Your task to perform on an android device: Open the web browser Image 0: 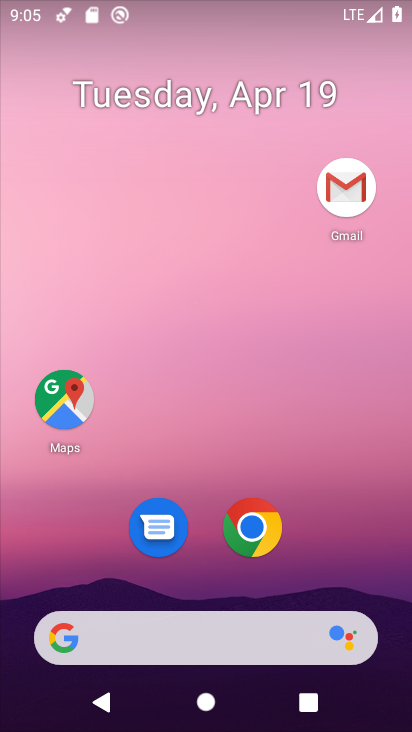
Step 0: drag from (373, 548) to (378, 76)
Your task to perform on an android device: Open the web browser Image 1: 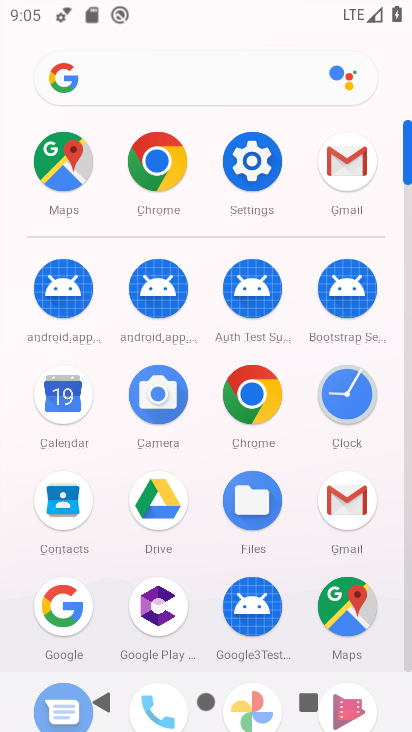
Step 1: click (273, 391)
Your task to perform on an android device: Open the web browser Image 2: 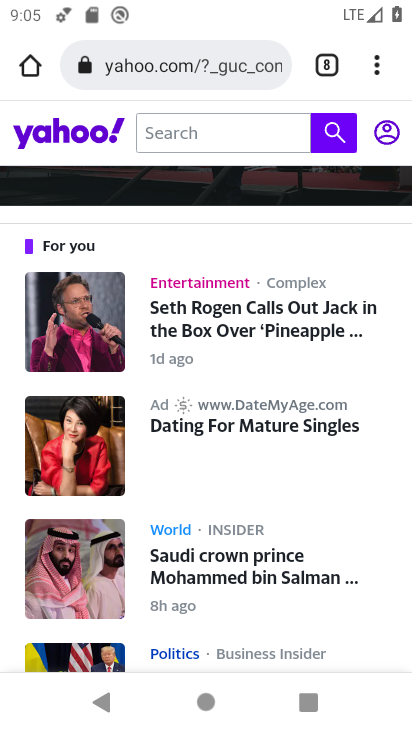
Step 2: click (326, 75)
Your task to perform on an android device: Open the web browser Image 3: 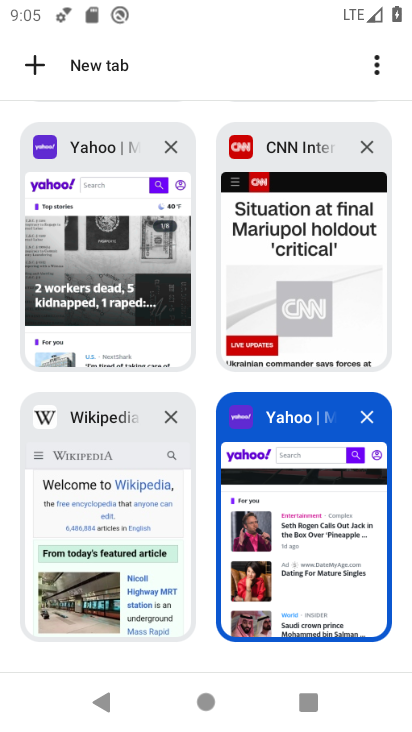
Step 3: click (39, 63)
Your task to perform on an android device: Open the web browser Image 4: 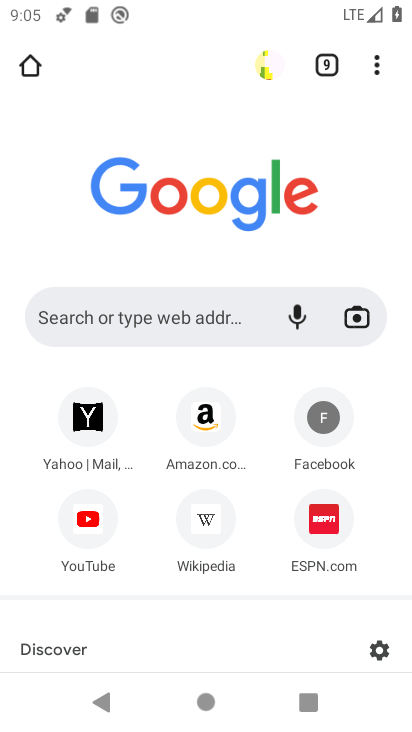
Step 4: click (187, 318)
Your task to perform on an android device: Open the web browser Image 5: 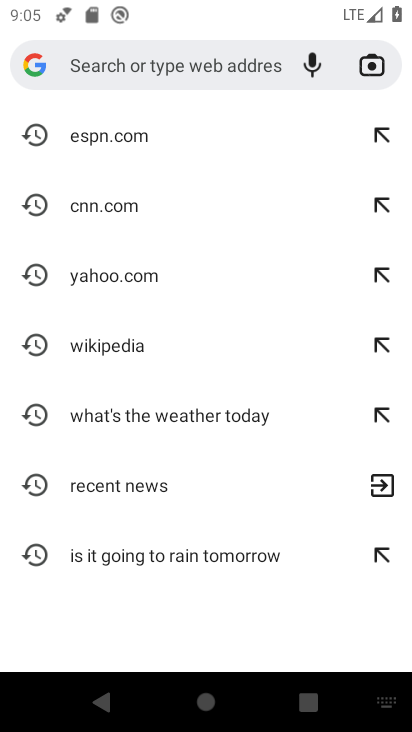
Step 5: task complete